Your task to perform on an android device: stop showing notifications on the lock screen Image 0: 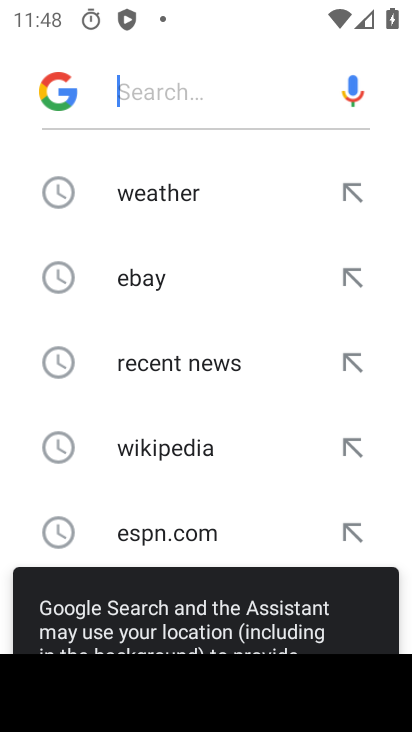
Step 0: press home button
Your task to perform on an android device: stop showing notifications on the lock screen Image 1: 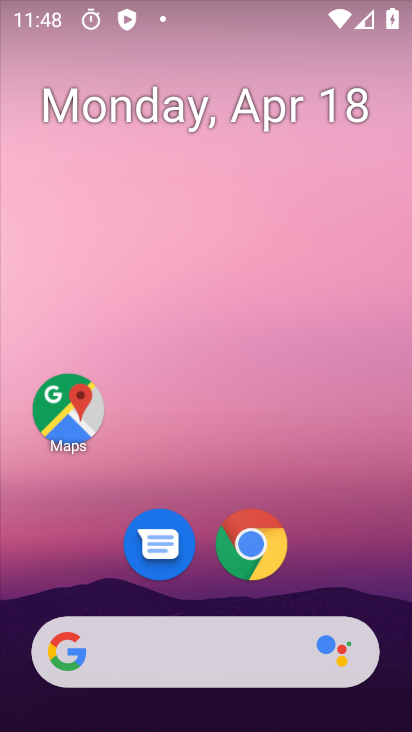
Step 1: drag from (354, 582) to (372, 63)
Your task to perform on an android device: stop showing notifications on the lock screen Image 2: 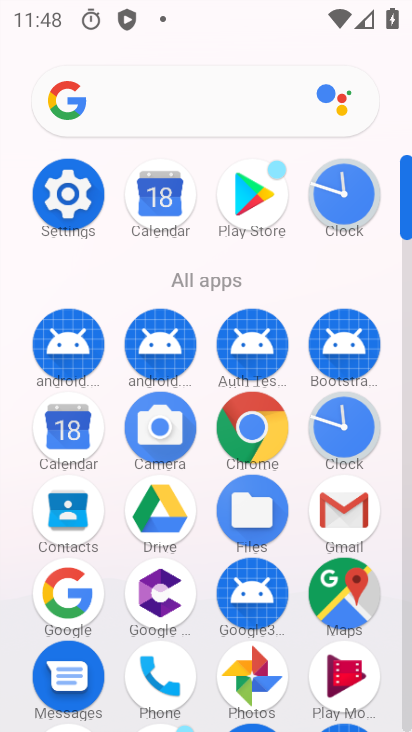
Step 2: click (67, 197)
Your task to perform on an android device: stop showing notifications on the lock screen Image 3: 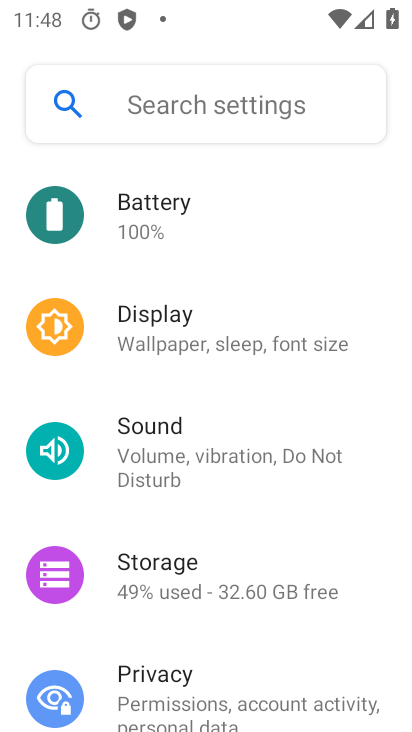
Step 3: drag from (373, 246) to (387, 634)
Your task to perform on an android device: stop showing notifications on the lock screen Image 4: 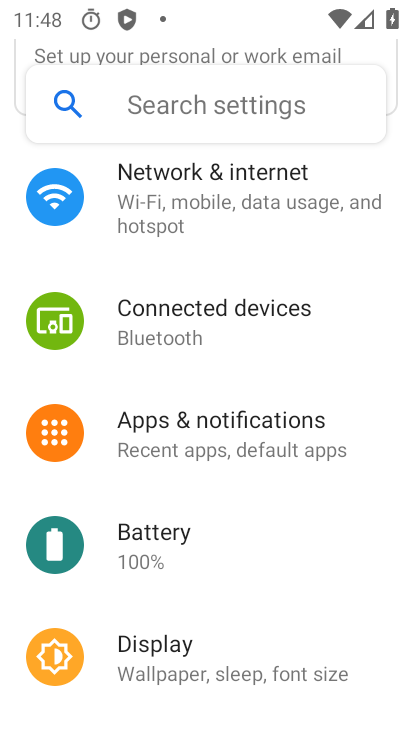
Step 4: click (202, 434)
Your task to perform on an android device: stop showing notifications on the lock screen Image 5: 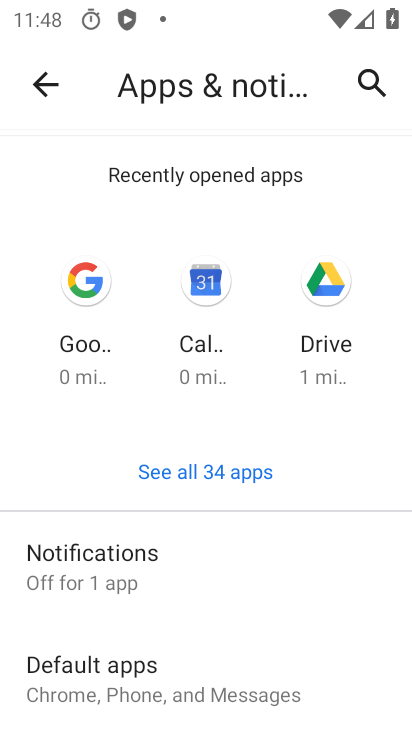
Step 5: click (101, 568)
Your task to perform on an android device: stop showing notifications on the lock screen Image 6: 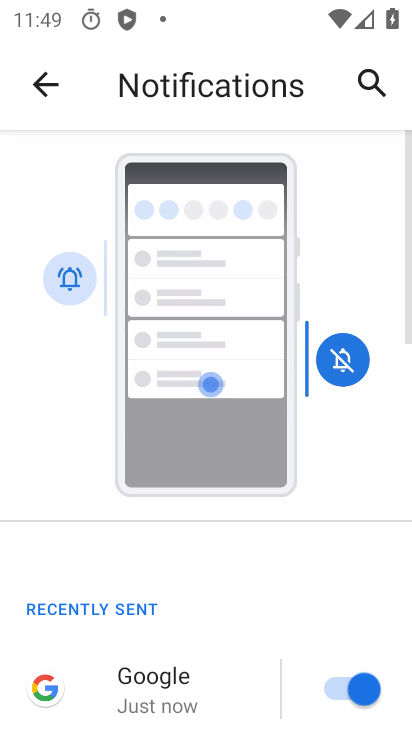
Step 6: drag from (159, 651) to (162, 253)
Your task to perform on an android device: stop showing notifications on the lock screen Image 7: 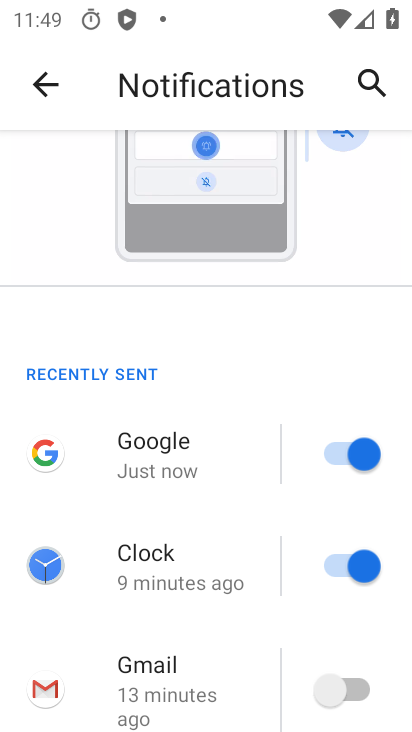
Step 7: drag from (171, 626) to (190, 220)
Your task to perform on an android device: stop showing notifications on the lock screen Image 8: 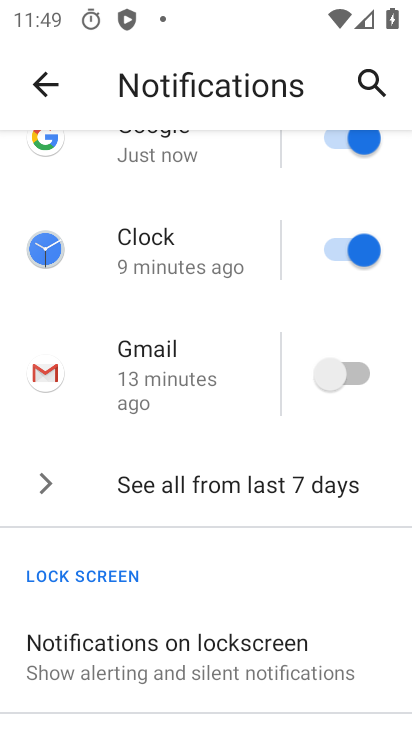
Step 8: click (191, 649)
Your task to perform on an android device: stop showing notifications on the lock screen Image 9: 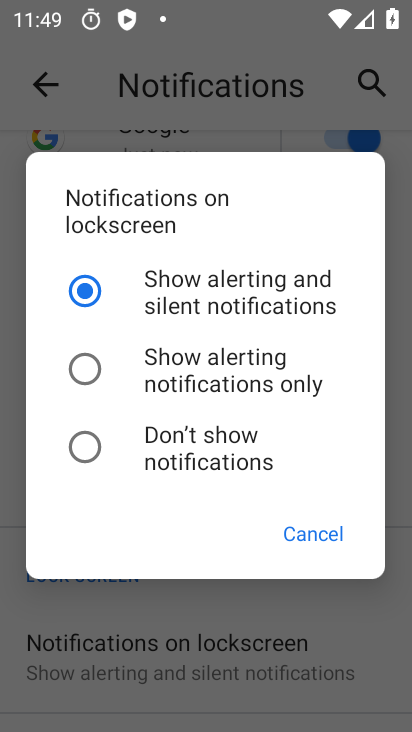
Step 9: click (94, 446)
Your task to perform on an android device: stop showing notifications on the lock screen Image 10: 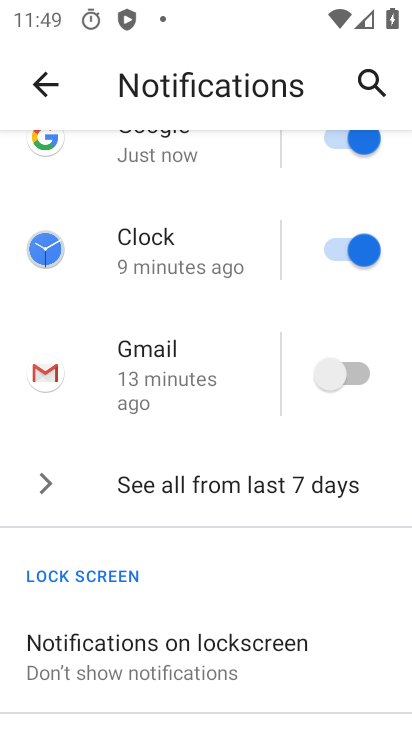
Step 10: task complete